Your task to perform on an android device: Do I have any events this weekend? Image 0: 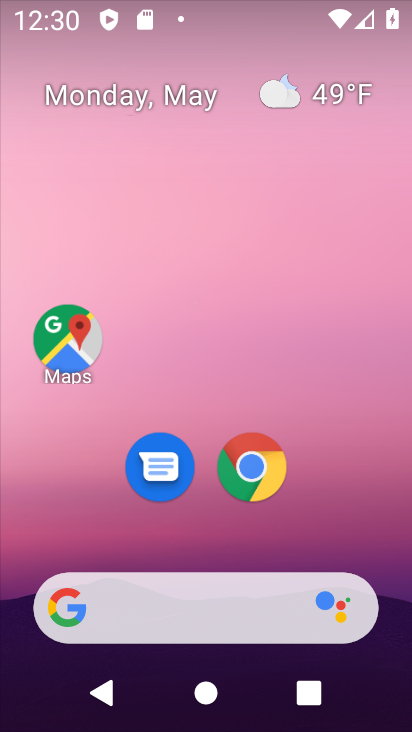
Step 0: drag from (364, 533) to (346, 132)
Your task to perform on an android device: Do I have any events this weekend? Image 1: 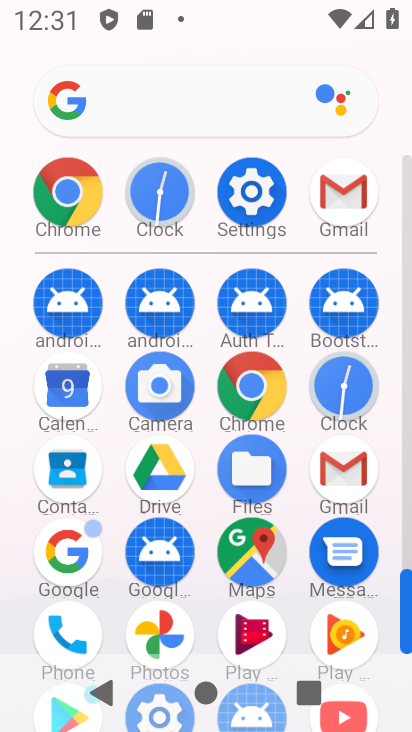
Step 1: click (73, 389)
Your task to perform on an android device: Do I have any events this weekend? Image 2: 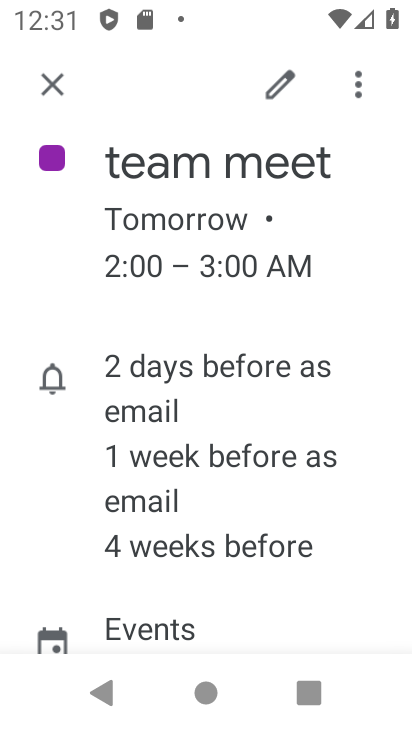
Step 2: click (40, 82)
Your task to perform on an android device: Do I have any events this weekend? Image 3: 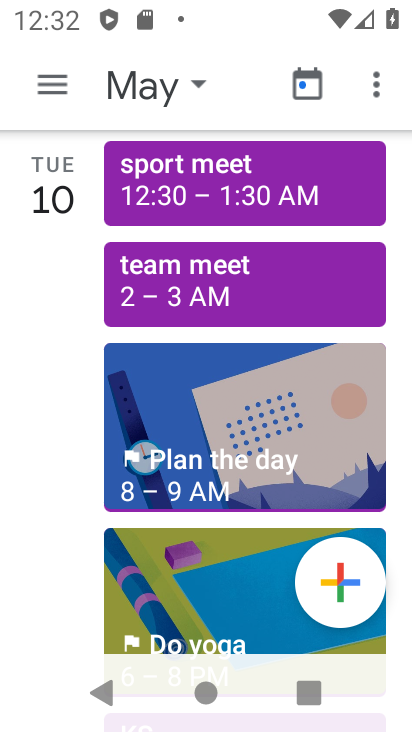
Step 3: task complete